Your task to perform on an android device: Open sound settings Image 0: 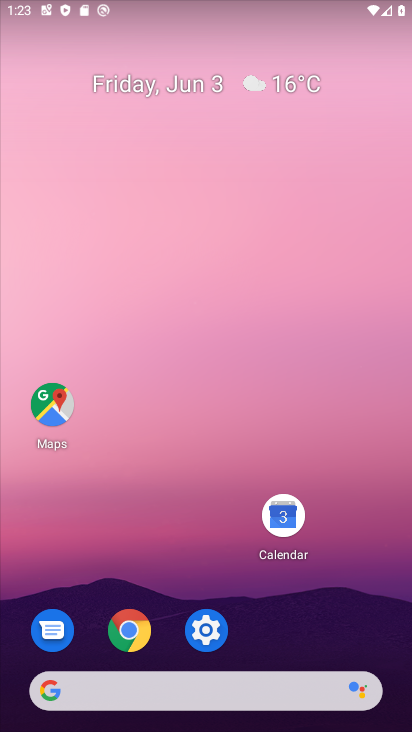
Step 0: drag from (258, 716) to (212, 0)
Your task to perform on an android device: Open sound settings Image 1: 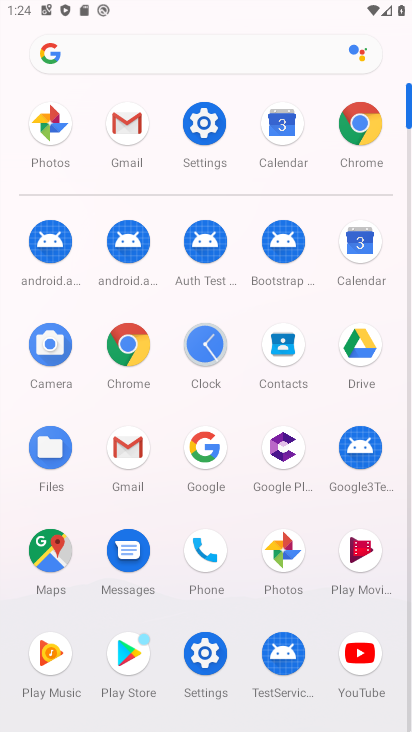
Step 1: click (191, 130)
Your task to perform on an android device: Open sound settings Image 2: 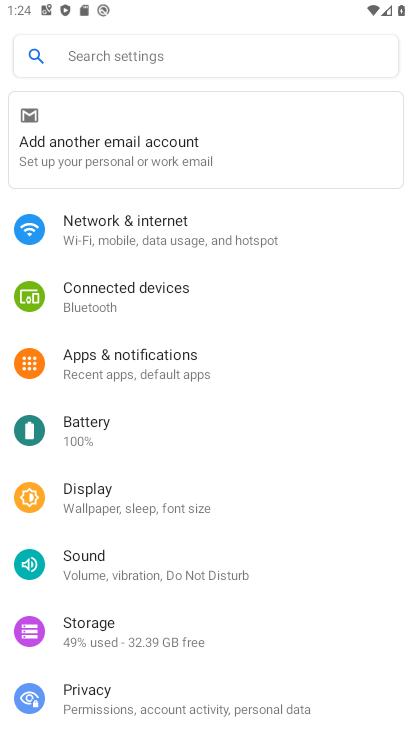
Step 2: click (140, 561)
Your task to perform on an android device: Open sound settings Image 3: 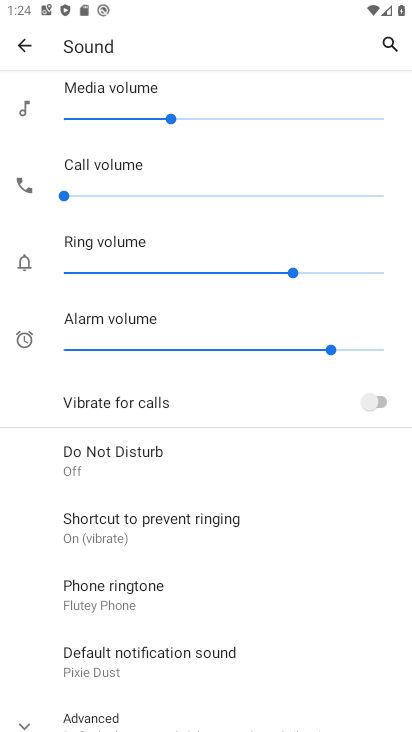
Step 3: task complete